Your task to perform on an android device: empty trash in the gmail app Image 0: 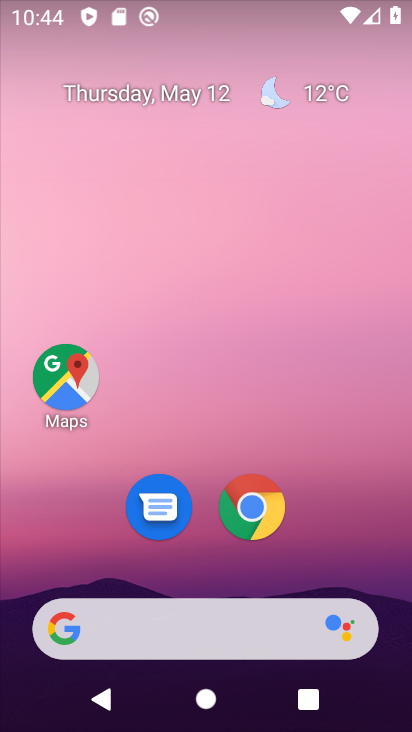
Step 0: drag from (209, 576) to (228, 41)
Your task to perform on an android device: empty trash in the gmail app Image 1: 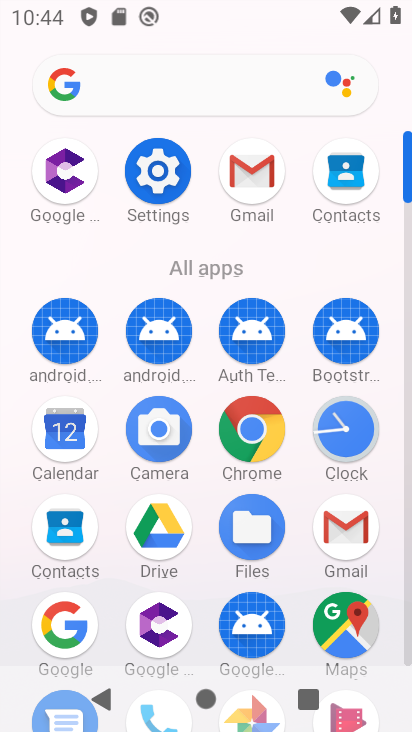
Step 1: click (354, 537)
Your task to perform on an android device: empty trash in the gmail app Image 2: 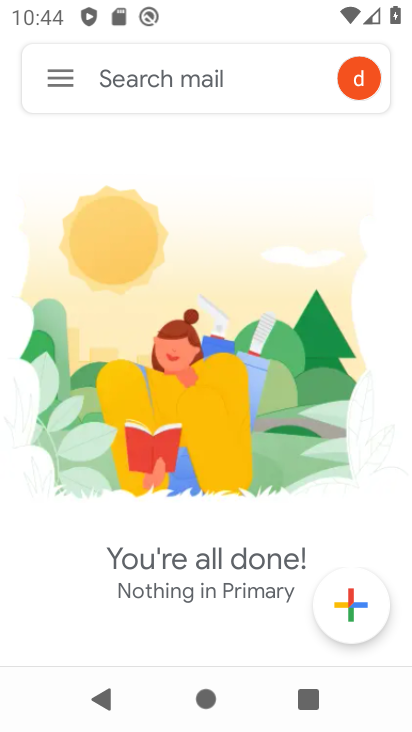
Step 2: click (61, 57)
Your task to perform on an android device: empty trash in the gmail app Image 3: 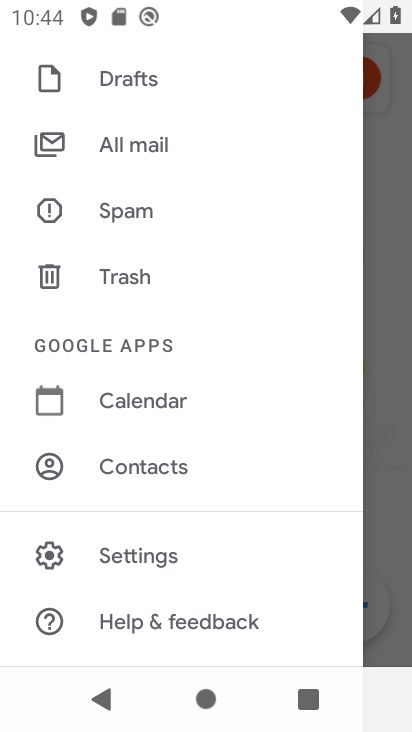
Step 3: click (96, 281)
Your task to perform on an android device: empty trash in the gmail app Image 4: 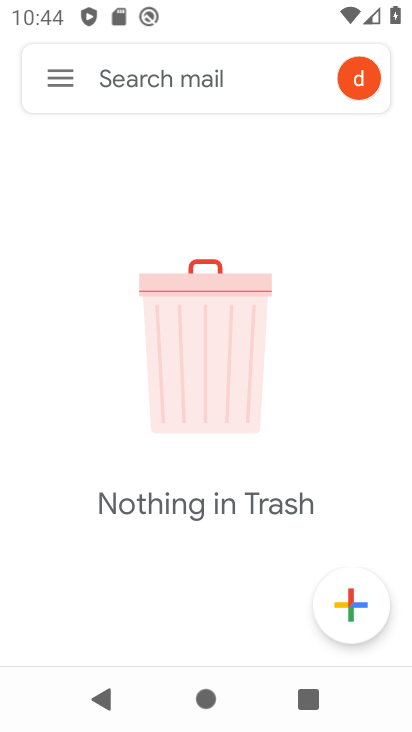
Step 4: task complete